Your task to perform on an android device: Is it going to rain tomorrow? Image 0: 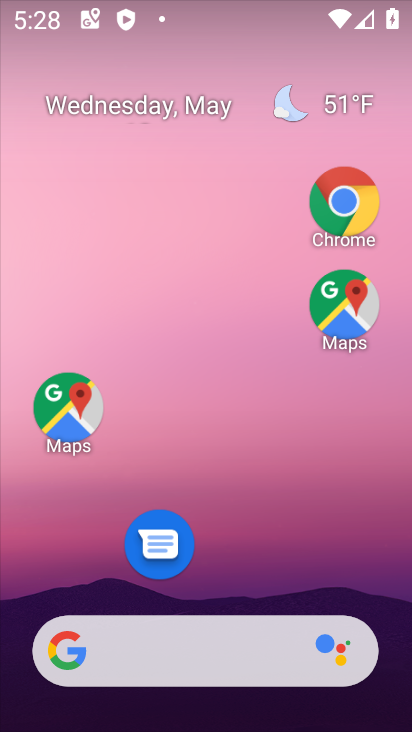
Step 0: click (232, 646)
Your task to perform on an android device: Is it going to rain tomorrow? Image 1: 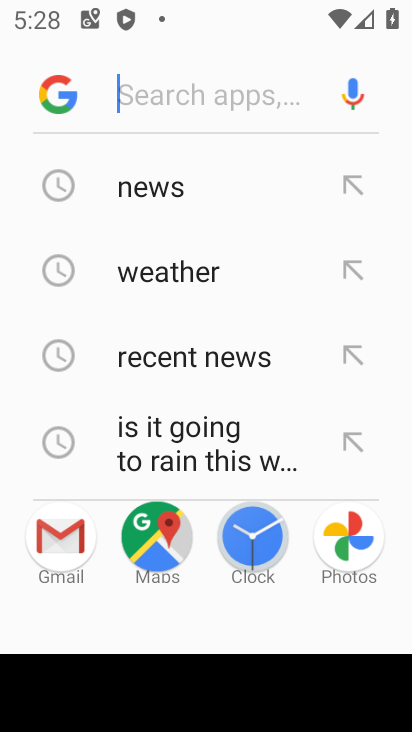
Step 1: click (181, 280)
Your task to perform on an android device: Is it going to rain tomorrow? Image 2: 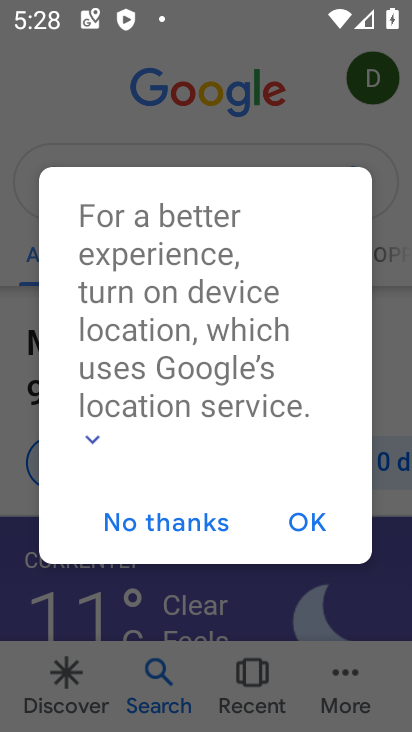
Step 2: click (320, 533)
Your task to perform on an android device: Is it going to rain tomorrow? Image 3: 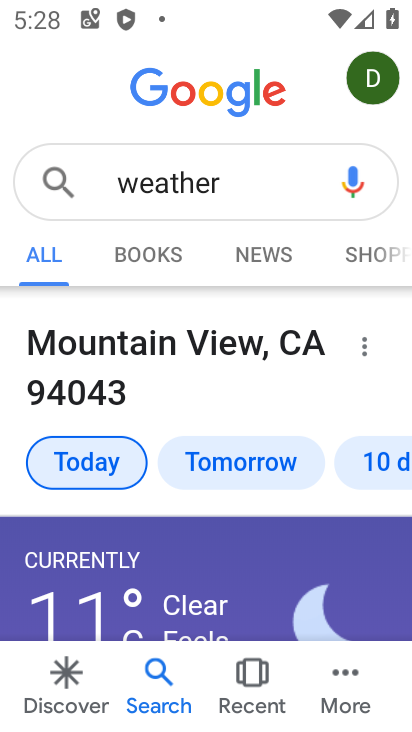
Step 3: click (243, 471)
Your task to perform on an android device: Is it going to rain tomorrow? Image 4: 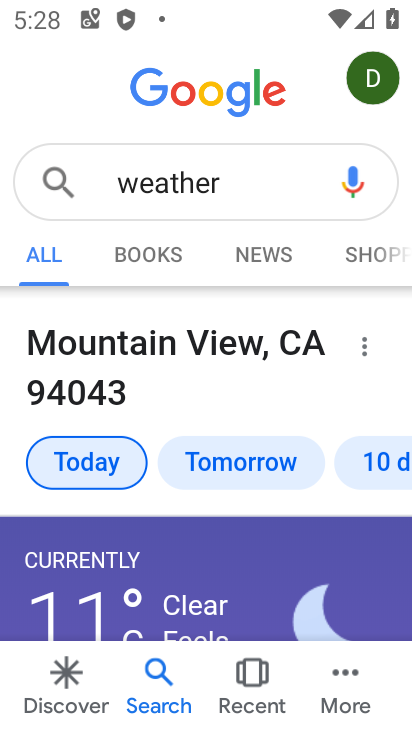
Step 4: click (232, 459)
Your task to perform on an android device: Is it going to rain tomorrow? Image 5: 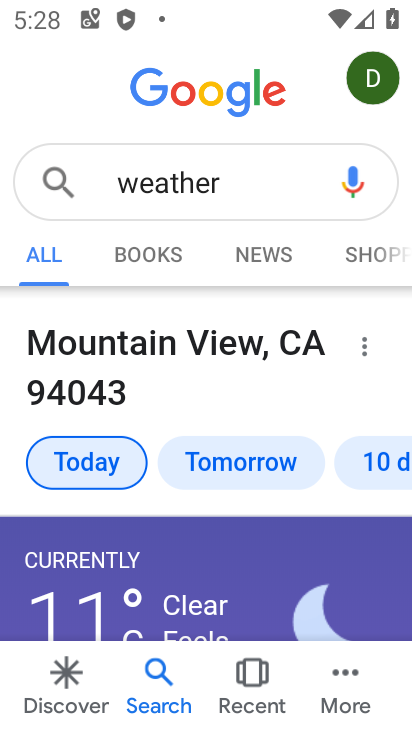
Step 5: click (232, 459)
Your task to perform on an android device: Is it going to rain tomorrow? Image 6: 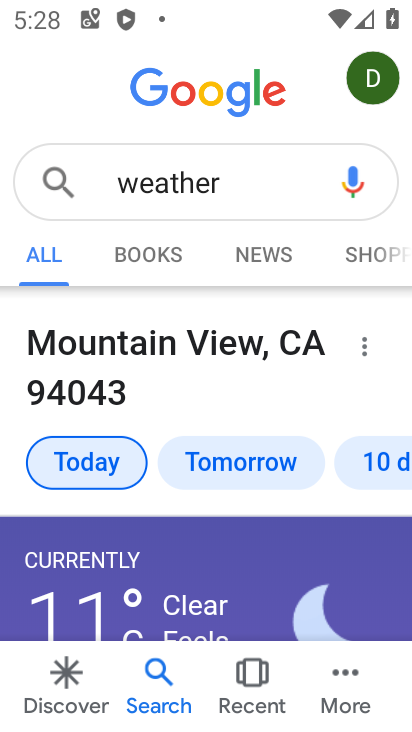
Step 6: click (232, 459)
Your task to perform on an android device: Is it going to rain tomorrow? Image 7: 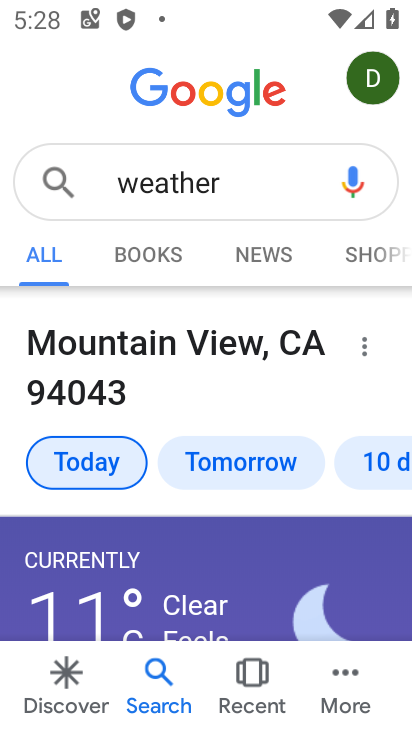
Step 7: click (232, 459)
Your task to perform on an android device: Is it going to rain tomorrow? Image 8: 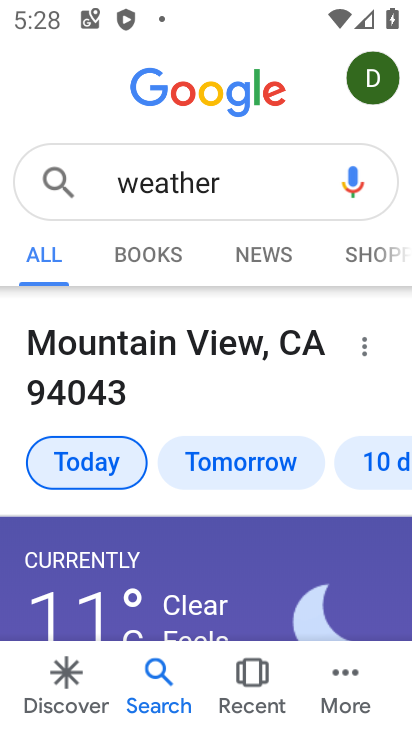
Step 8: click (256, 476)
Your task to perform on an android device: Is it going to rain tomorrow? Image 9: 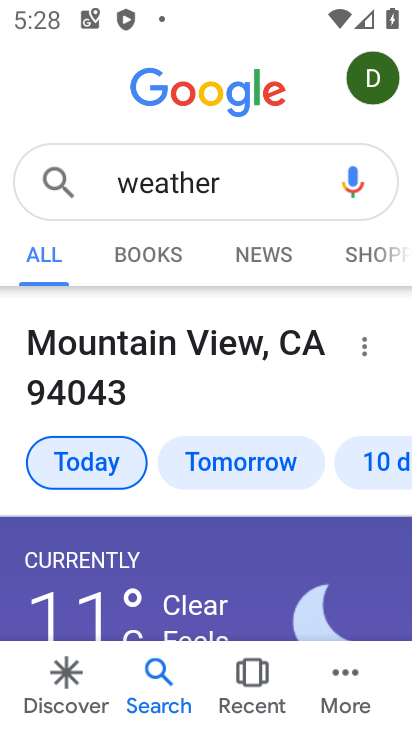
Step 9: click (256, 476)
Your task to perform on an android device: Is it going to rain tomorrow? Image 10: 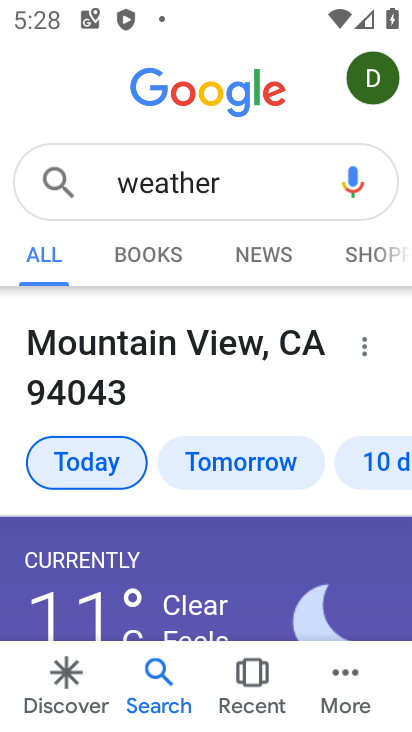
Step 10: click (256, 476)
Your task to perform on an android device: Is it going to rain tomorrow? Image 11: 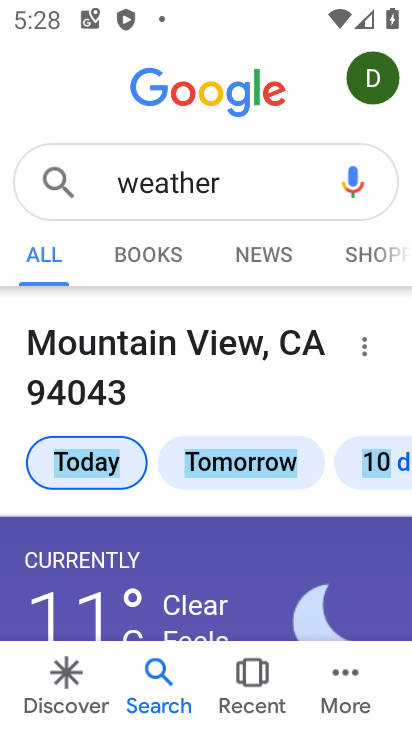
Step 11: click (242, 456)
Your task to perform on an android device: Is it going to rain tomorrow? Image 12: 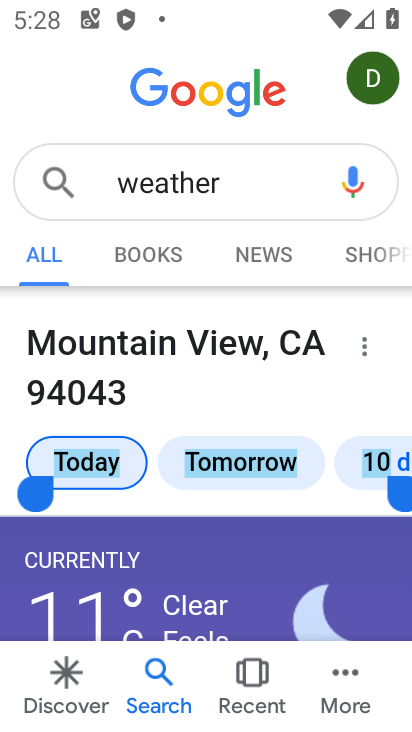
Step 12: click (257, 681)
Your task to perform on an android device: Is it going to rain tomorrow? Image 13: 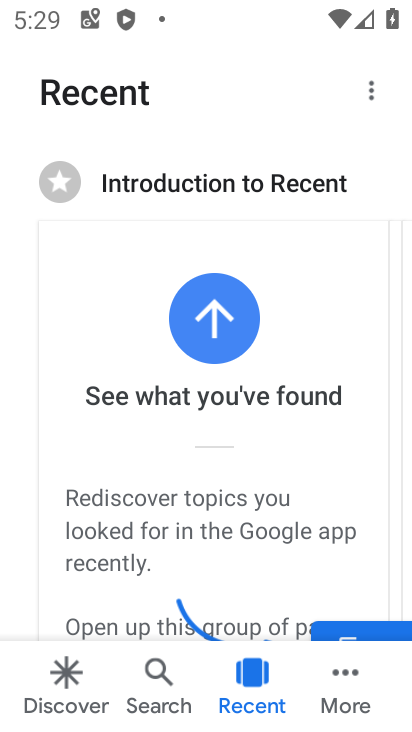
Step 13: click (63, 682)
Your task to perform on an android device: Is it going to rain tomorrow? Image 14: 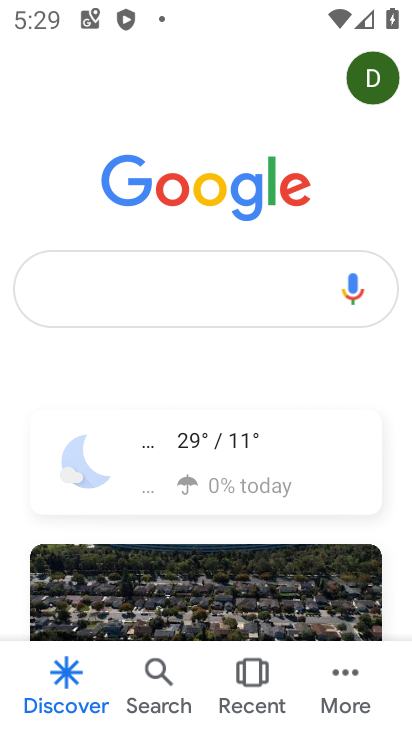
Step 14: click (282, 296)
Your task to perform on an android device: Is it going to rain tomorrow? Image 15: 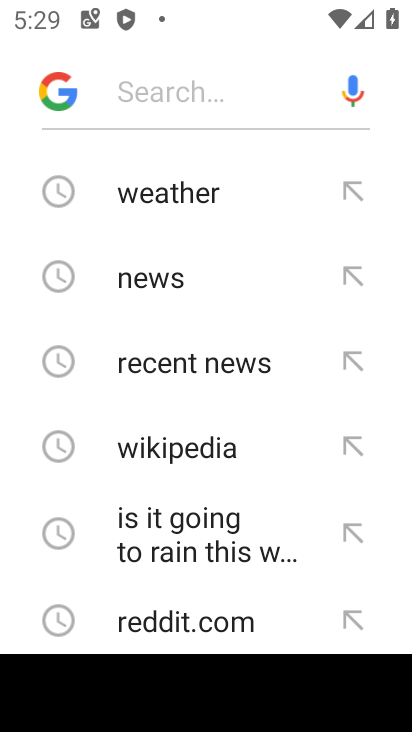
Step 15: click (175, 193)
Your task to perform on an android device: Is it going to rain tomorrow? Image 16: 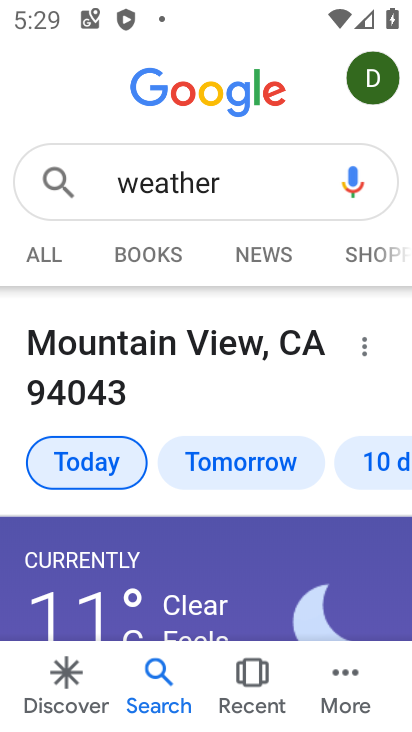
Step 16: click (226, 448)
Your task to perform on an android device: Is it going to rain tomorrow? Image 17: 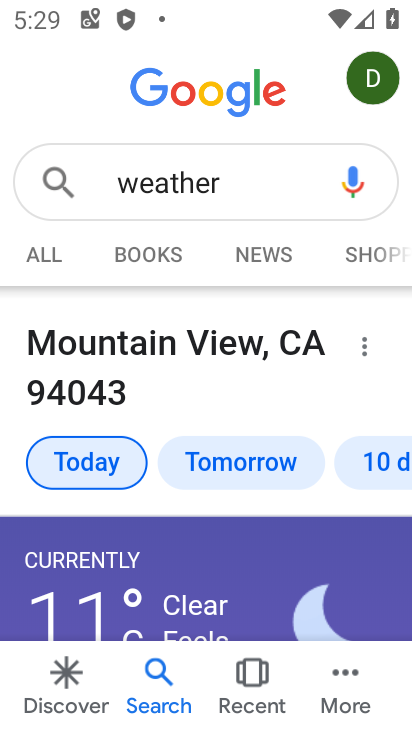
Step 17: click (232, 462)
Your task to perform on an android device: Is it going to rain tomorrow? Image 18: 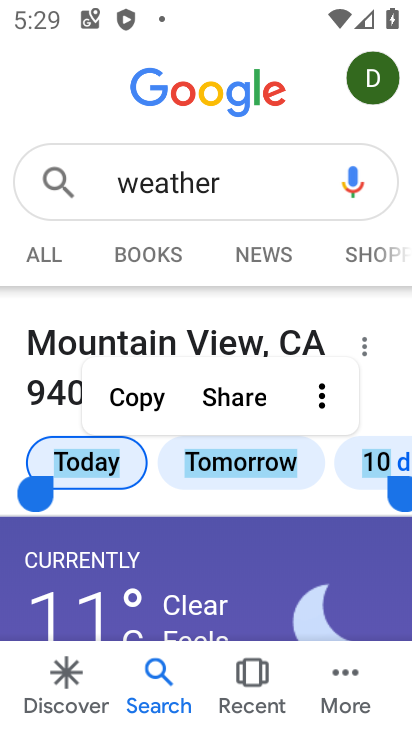
Step 18: click (238, 462)
Your task to perform on an android device: Is it going to rain tomorrow? Image 19: 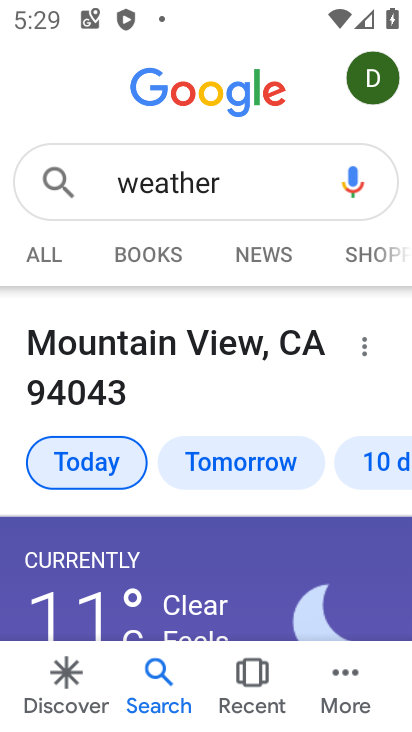
Step 19: task complete